Your task to perform on an android device: Go to wifi settings Image 0: 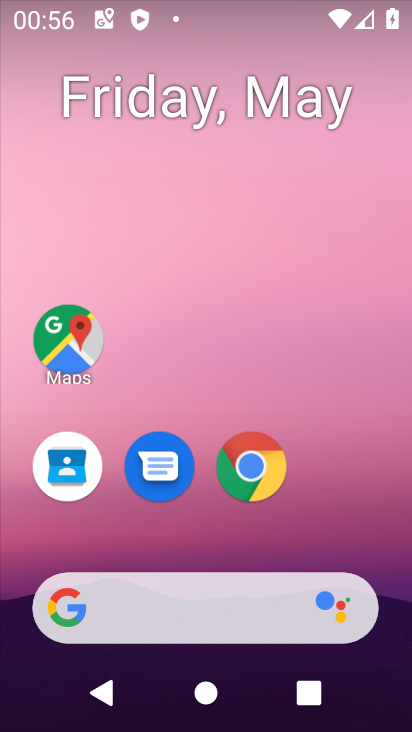
Step 0: drag from (199, 537) to (246, 135)
Your task to perform on an android device: Go to wifi settings Image 1: 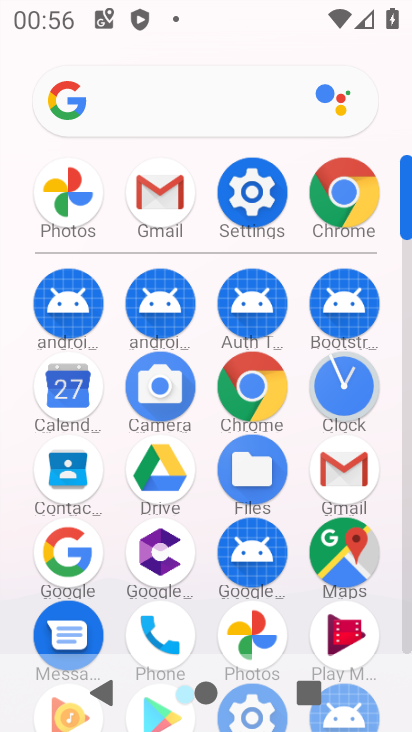
Step 1: click (249, 187)
Your task to perform on an android device: Go to wifi settings Image 2: 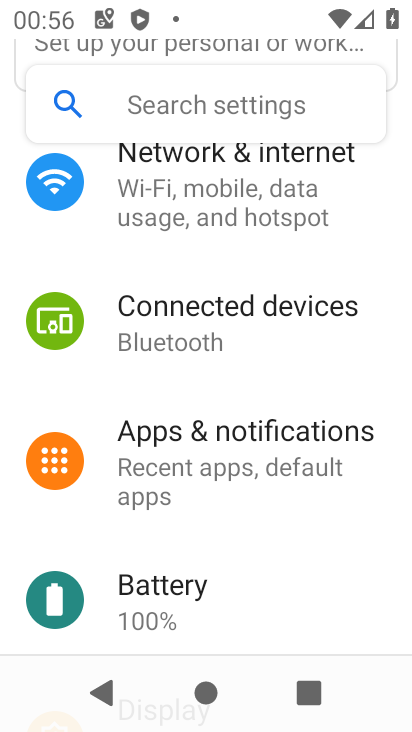
Step 2: click (235, 190)
Your task to perform on an android device: Go to wifi settings Image 3: 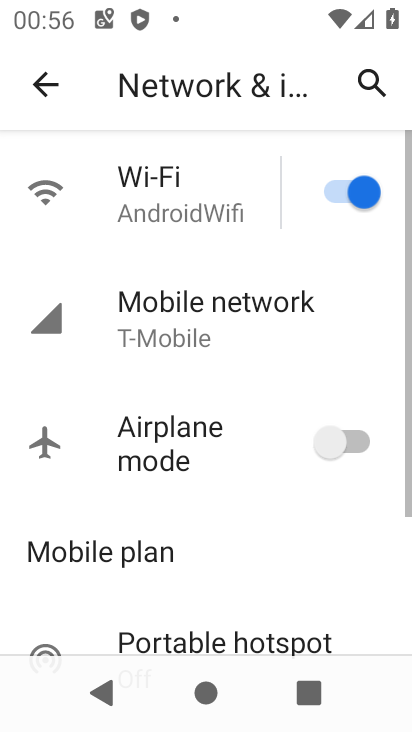
Step 3: click (125, 194)
Your task to perform on an android device: Go to wifi settings Image 4: 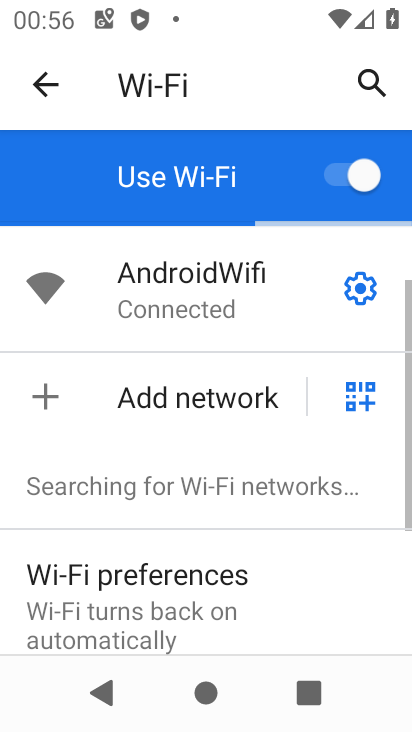
Step 4: task complete